Your task to perform on an android device: set default search engine in the chrome app Image 0: 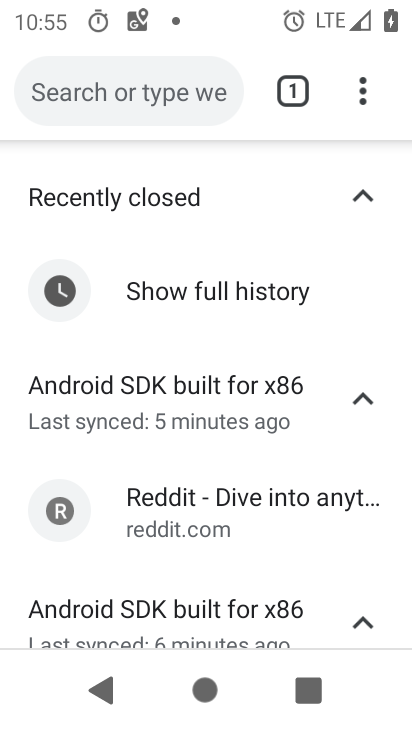
Step 0: press home button
Your task to perform on an android device: set default search engine in the chrome app Image 1: 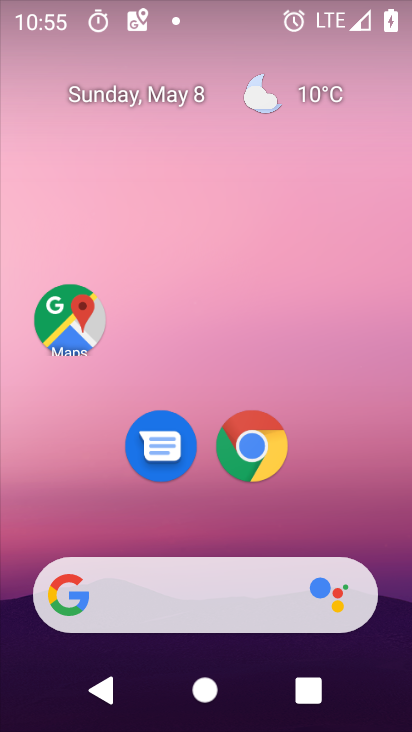
Step 1: click (262, 446)
Your task to perform on an android device: set default search engine in the chrome app Image 2: 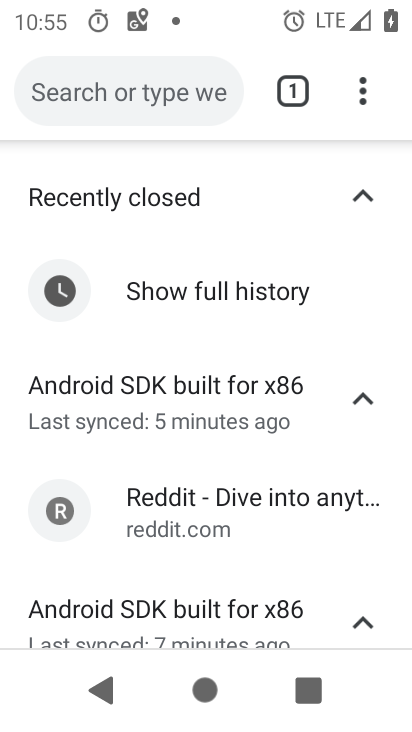
Step 2: drag from (362, 90) to (178, 482)
Your task to perform on an android device: set default search engine in the chrome app Image 3: 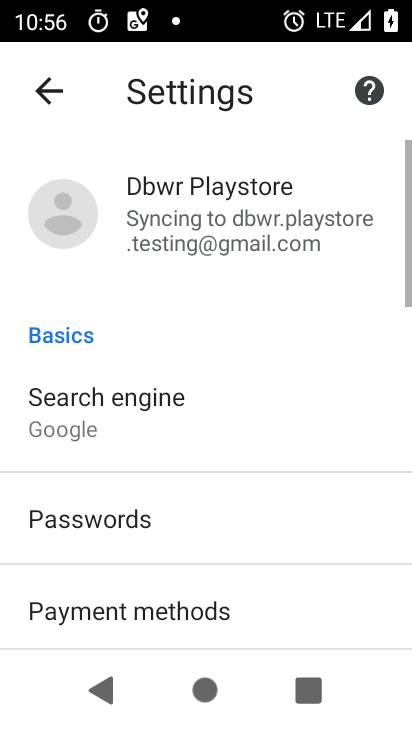
Step 3: click (125, 407)
Your task to perform on an android device: set default search engine in the chrome app Image 4: 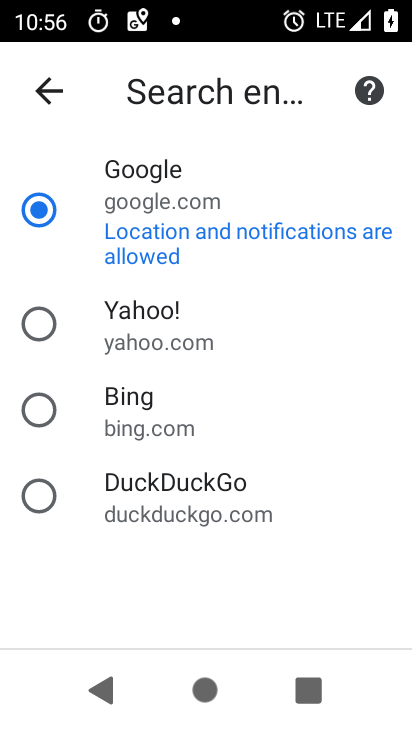
Step 4: click (44, 406)
Your task to perform on an android device: set default search engine in the chrome app Image 5: 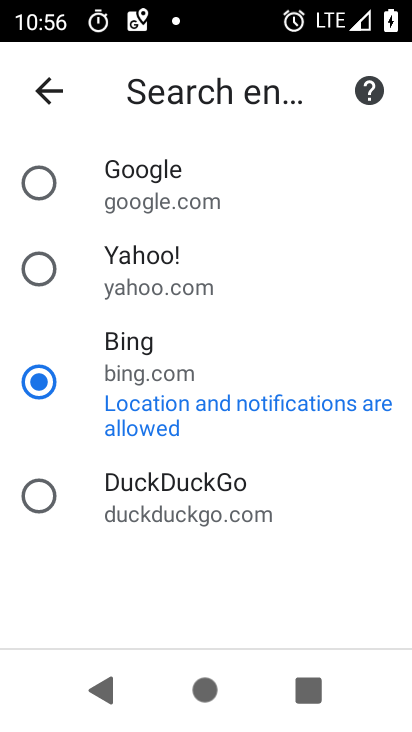
Step 5: task complete